Your task to perform on an android device: choose inbox layout in the gmail app Image 0: 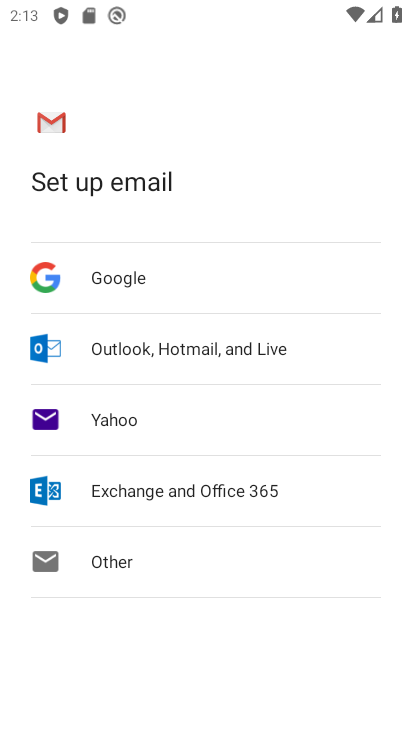
Step 0: press home button
Your task to perform on an android device: choose inbox layout in the gmail app Image 1: 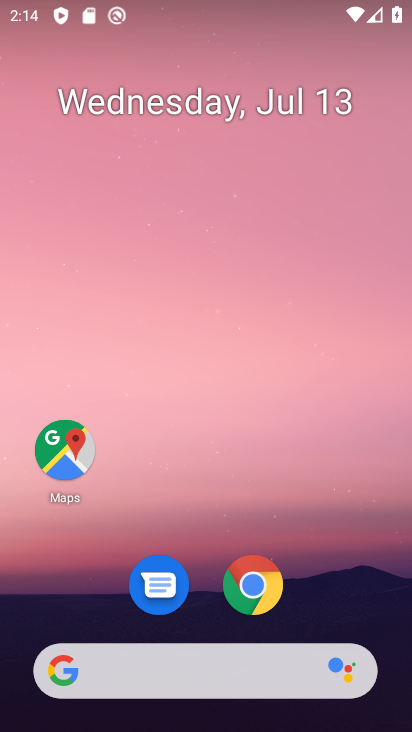
Step 1: drag from (218, 665) to (232, 202)
Your task to perform on an android device: choose inbox layout in the gmail app Image 2: 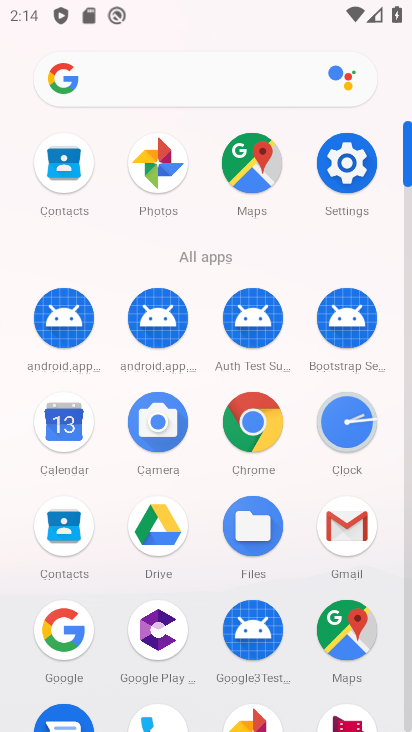
Step 2: click (344, 513)
Your task to perform on an android device: choose inbox layout in the gmail app Image 3: 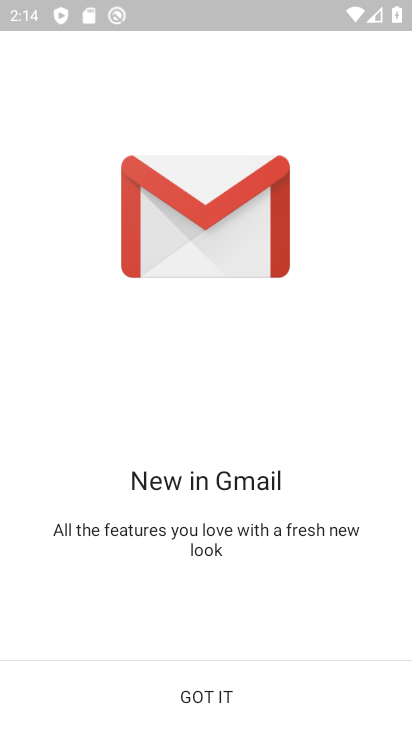
Step 3: click (216, 695)
Your task to perform on an android device: choose inbox layout in the gmail app Image 4: 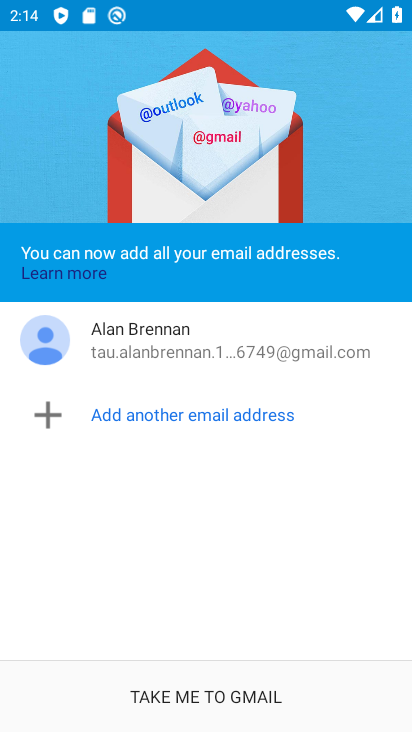
Step 4: click (216, 695)
Your task to perform on an android device: choose inbox layout in the gmail app Image 5: 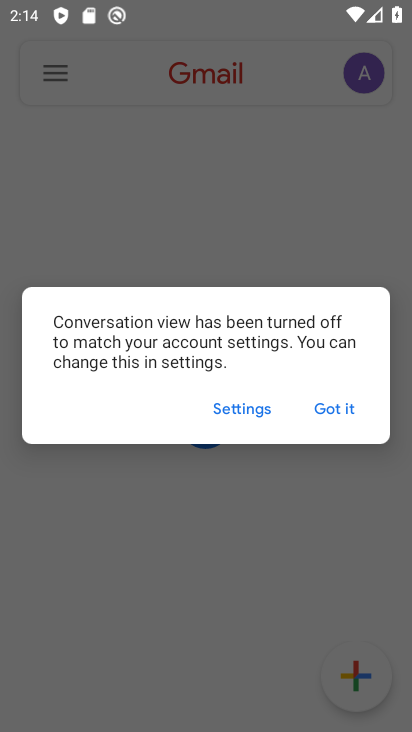
Step 5: click (331, 414)
Your task to perform on an android device: choose inbox layout in the gmail app Image 6: 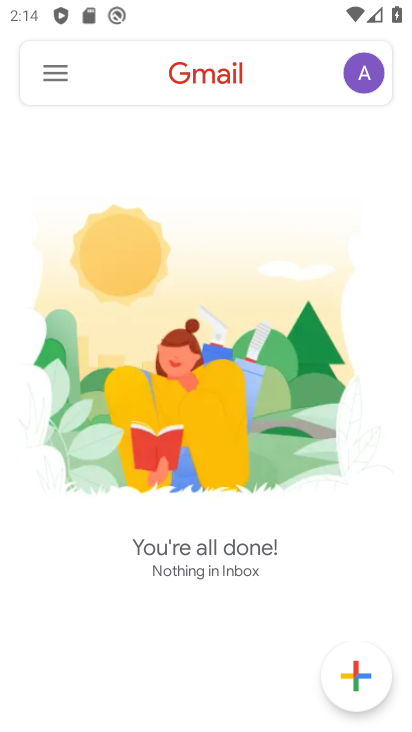
Step 6: click (57, 83)
Your task to perform on an android device: choose inbox layout in the gmail app Image 7: 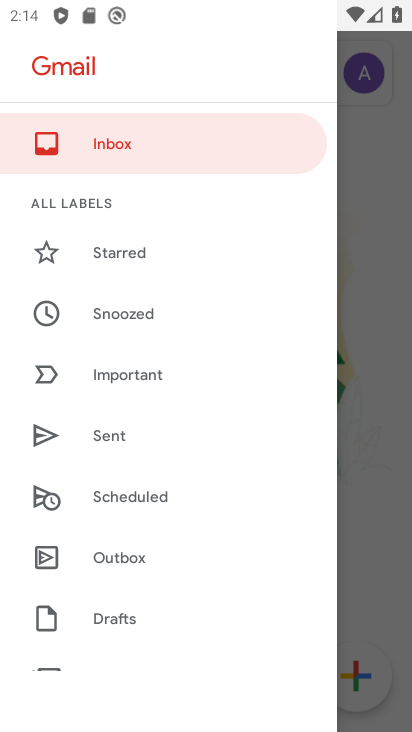
Step 7: drag from (158, 608) to (176, 152)
Your task to perform on an android device: choose inbox layout in the gmail app Image 8: 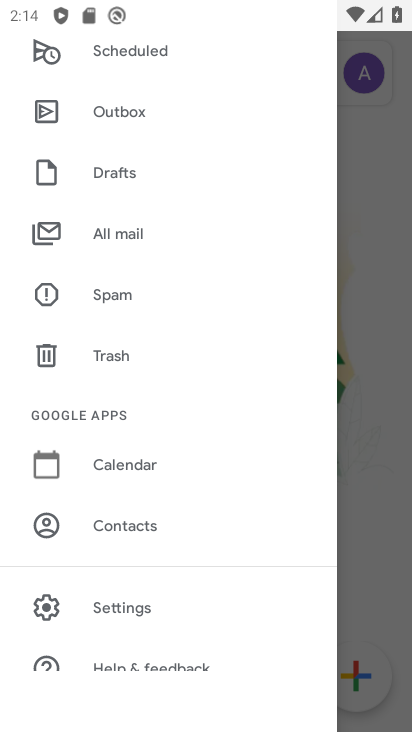
Step 8: click (114, 608)
Your task to perform on an android device: choose inbox layout in the gmail app Image 9: 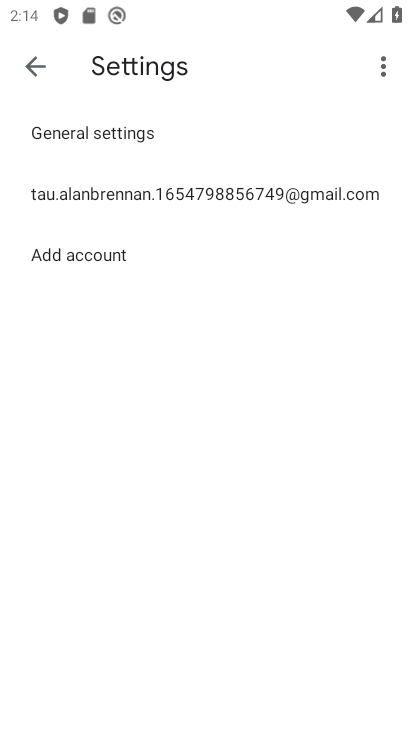
Step 9: click (180, 194)
Your task to perform on an android device: choose inbox layout in the gmail app Image 10: 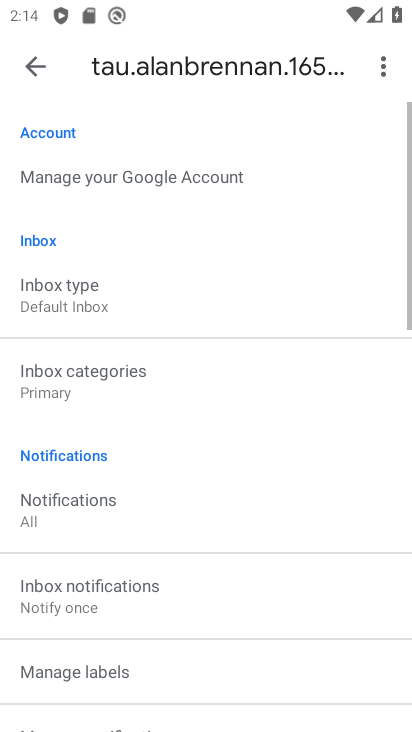
Step 10: click (86, 298)
Your task to perform on an android device: choose inbox layout in the gmail app Image 11: 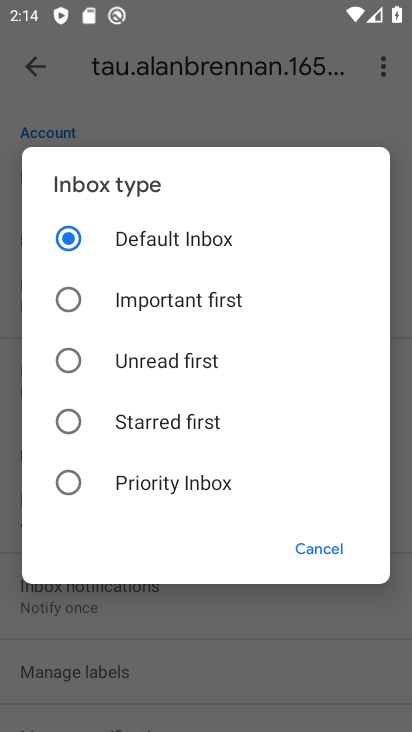
Step 11: click (68, 470)
Your task to perform on an android device: choose inbox layout in the gmail app Image 12: 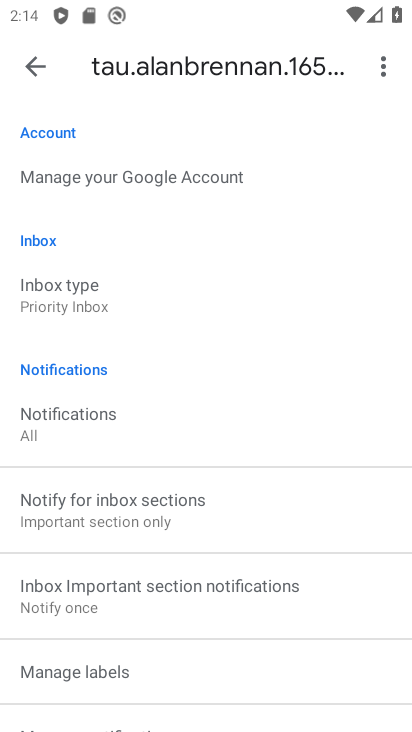
Step 12: task complete